Your task to perform on an android device: Open calendar and show me the fourth week of next month Image 0: 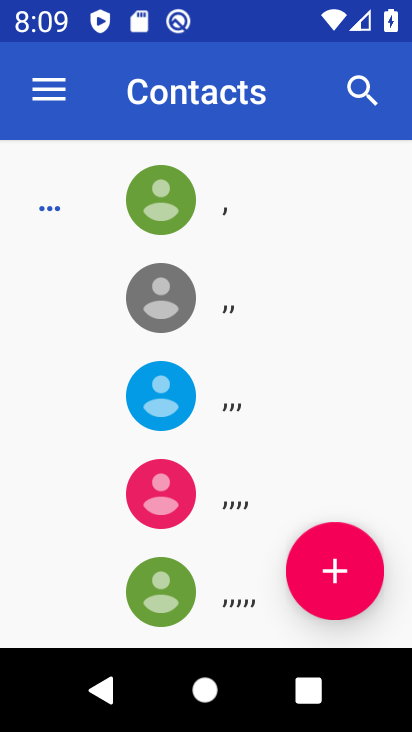
Step 0: press home button
Your task to perform on an android device: Open calendar and show me the fourth week of next month Image 1: 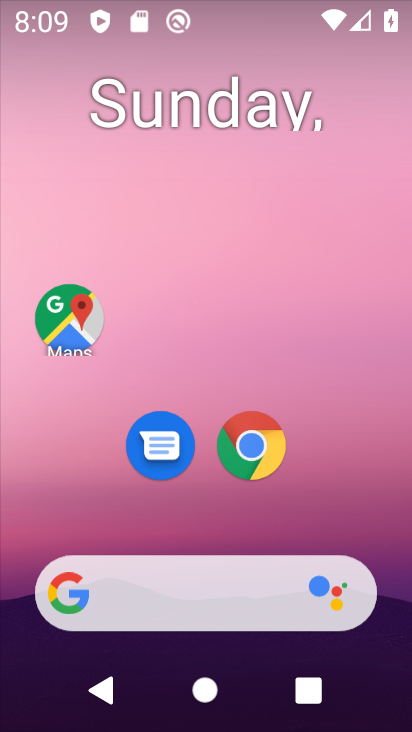
Step 1: drag from (308, 525) to (340, 2)
Your task to perform on an android device: Open calendar and show me the fourth week of next month Image 2: 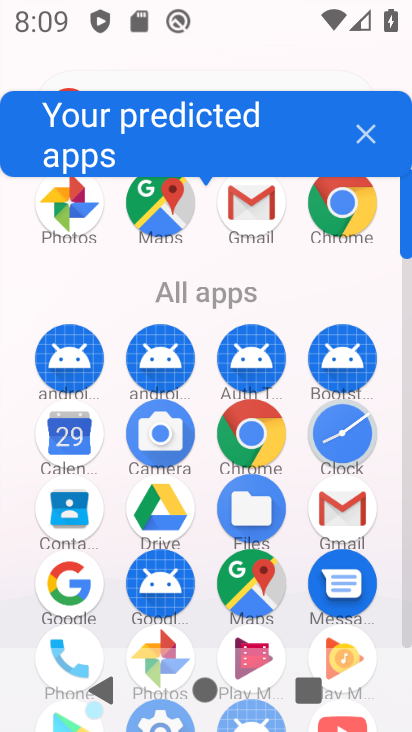
Step 2: click (51, 443)
Your task to perform on an android device: Open calendar and show me the fourth week of next month Image 3: 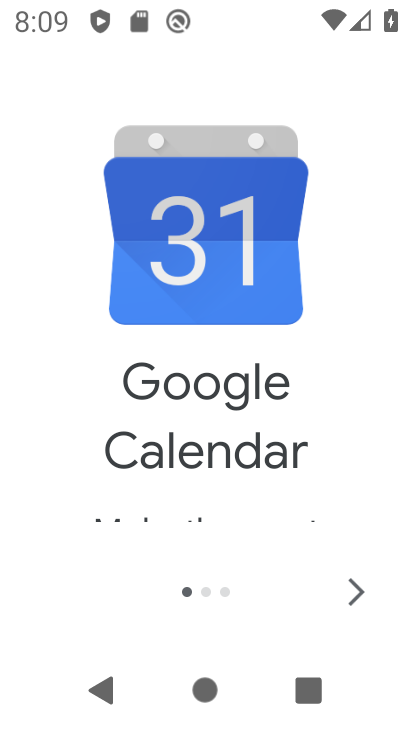
Step 3: click (344, 604)
Your task to perform on an android device: Open calendar and show me the fourth week of next month Image 4: 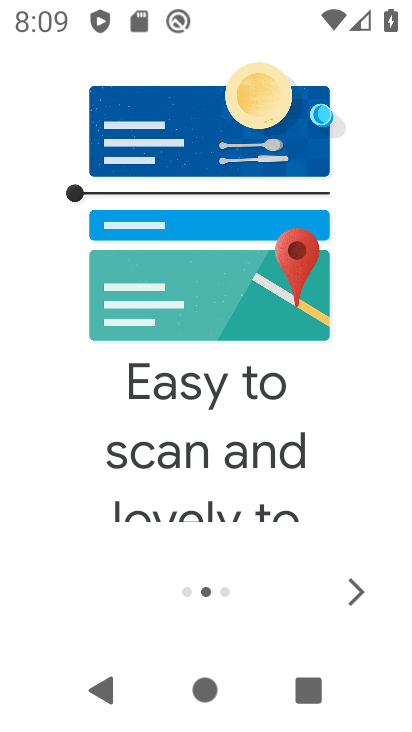
Step 4: click (344, 603)
Your task to perform on an android device: Open calendar and show me the fourth week of next month Image 5: 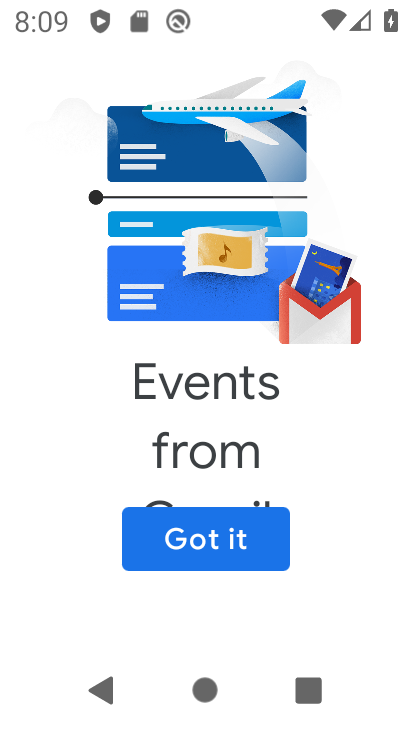
Step 5: click (211, 551)
Your task to perform on an android device: Open calendar and show me the fourth week of next month Image 6: 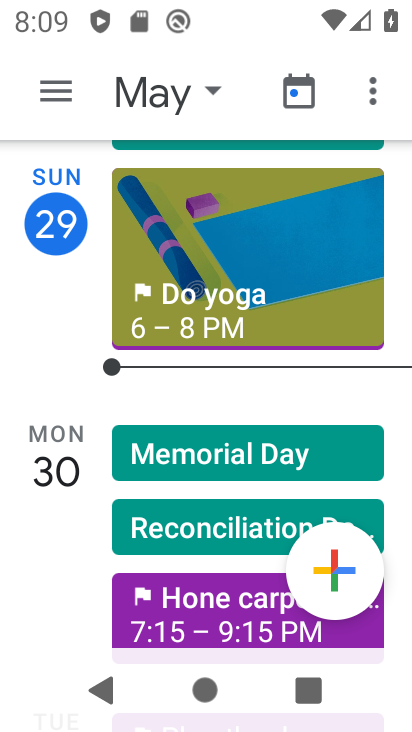
Step 6: click (159, 103)
Your task to perform on an android device: Open calendar and show me the fourth week of next month Image 7: 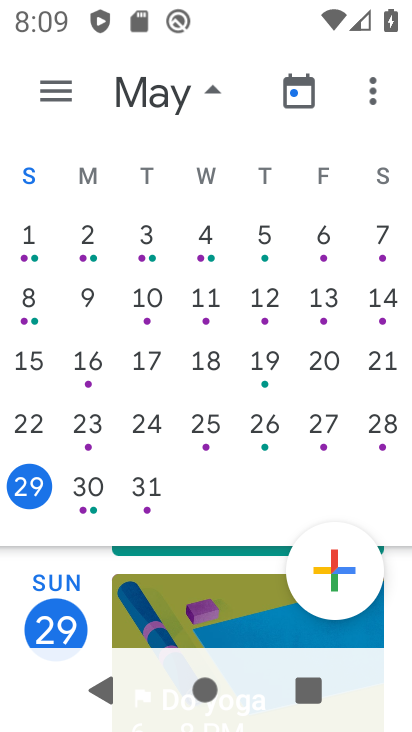
Step 7: drag from (369, 350) to (10, 370)
Your task to perform on an android device: Open calendar and show me the fourth week of next month Image 8: 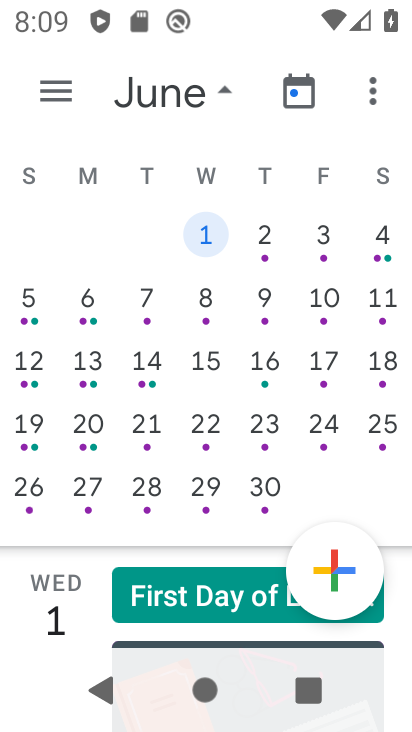
Step 8: click (44, 425)
Your task to perform on an android device: Open calendar and show me the fourth week of next month Image 9: 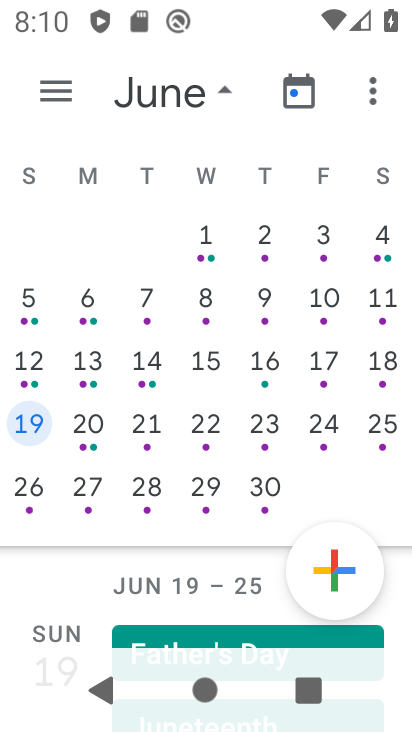
Step 9: task complete